Your task to perform on an android device: Go to eBay Image 0: 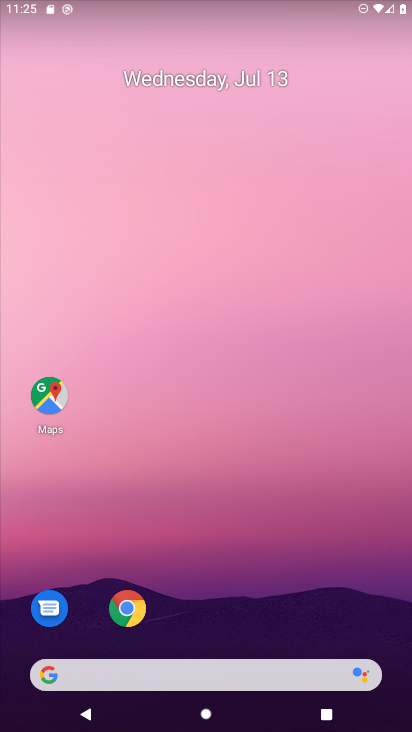
Step 0: click (131, 605)
Your task to perform on an android device: Go to eBay Image 1: 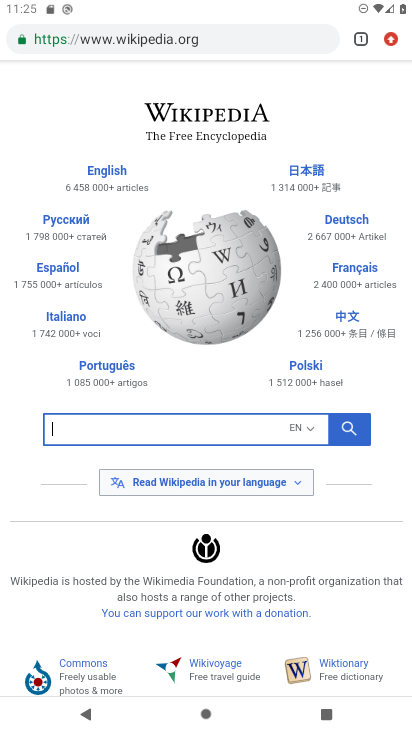
Step 1: click (213, 39)
Your task to perform on an android device: Go to eBay Image 2: 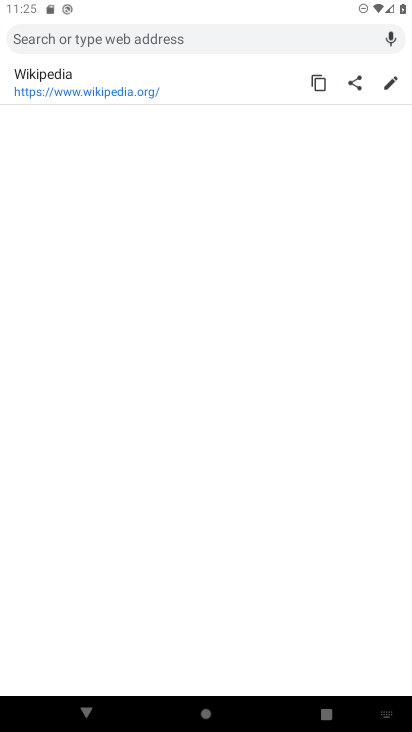
Step 2: type "ebay"
Your task to perform on an android device: Go to eBay Image 3: 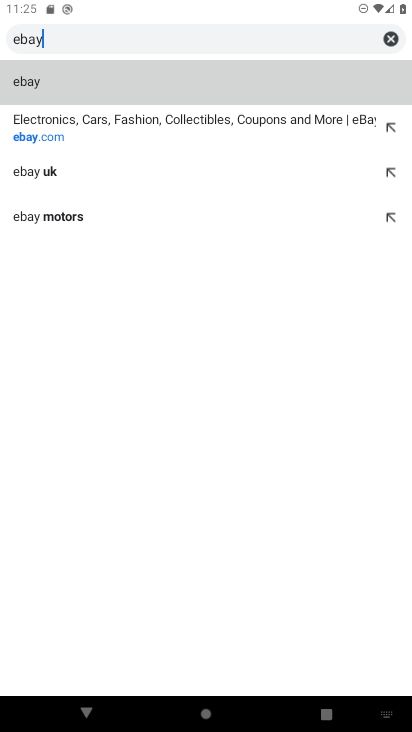
Step 3: click (146, 82)
Your task to perform on an android device: Go to eBay Image 4: 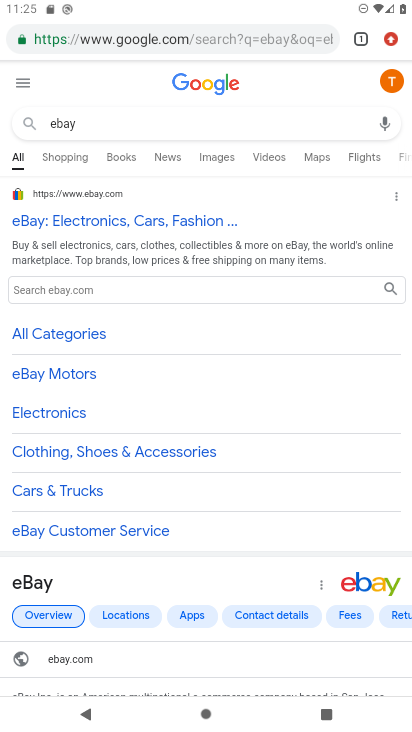
Step 4: click (38, 223)
Your task to perform on an android device: Go to eBay Image 5: 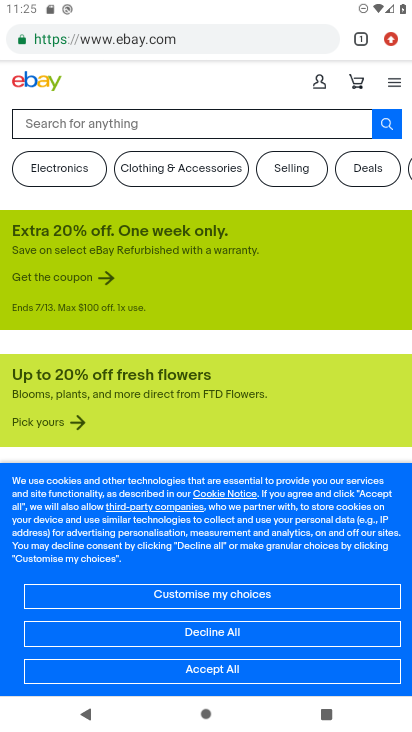
Step 5: task complete